Your task to perform on an android device: Do I have any events today? Image 0: 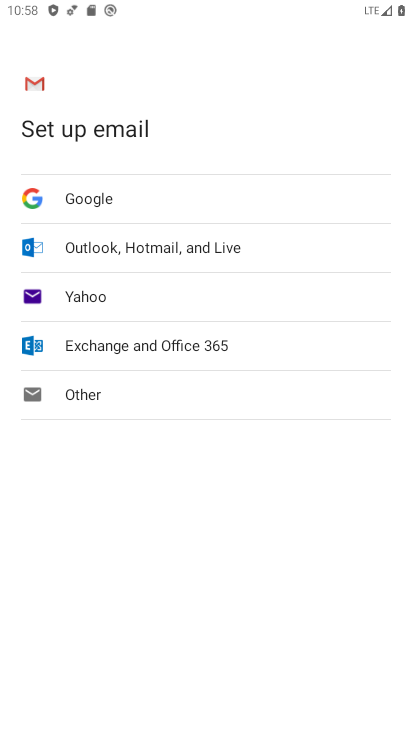
Step 0: press home button
Your task to perform on an android device: Do I have any events today? Image 1: 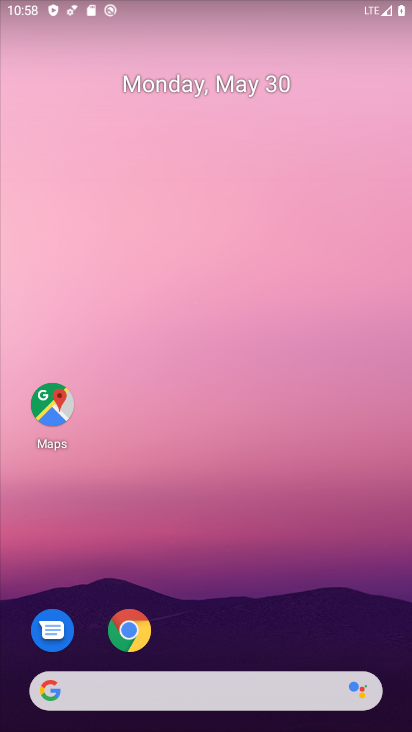
Step 1: drag from (268, 406) to (333, 164)
Your task to perform on an android device: Do I have any events today? Image 2: 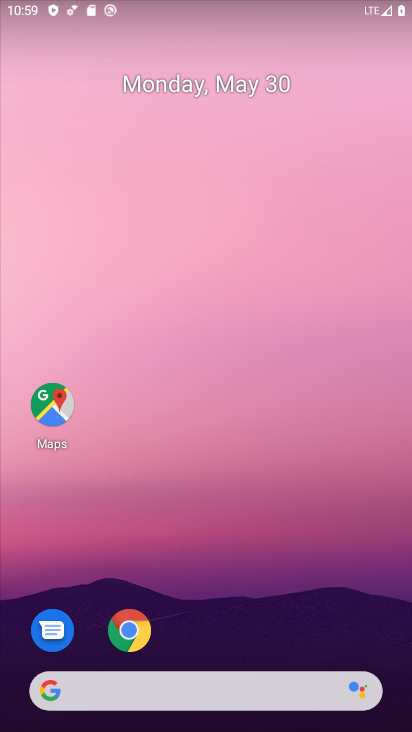
Step 2: drag from (276, 598) to (306, 185)
Your task to perform on an android device: Do I have any events today? Image 3: 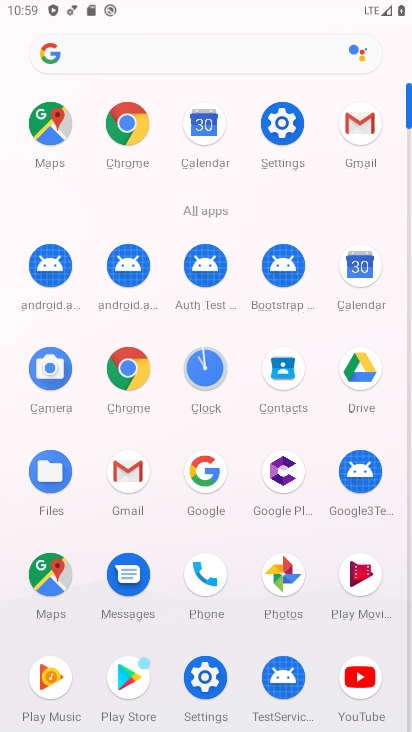
Step 3: click (365, 285)
Your task to perform on an android device: Do I have any events today? Image 4: 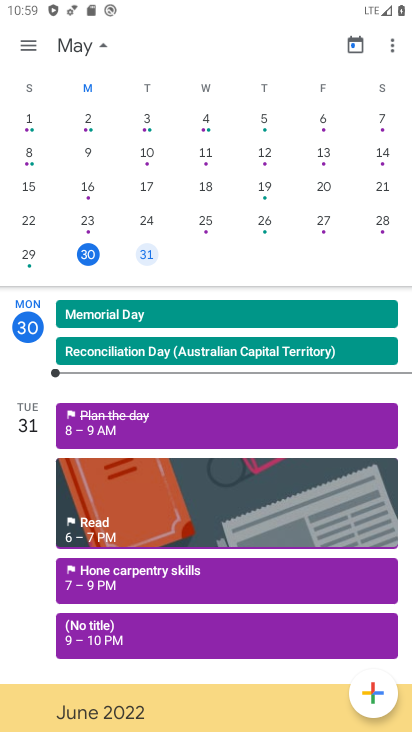
Step 4: click (141, 257)
Your task to perform on an android device: Do I have any events today? Image 5: 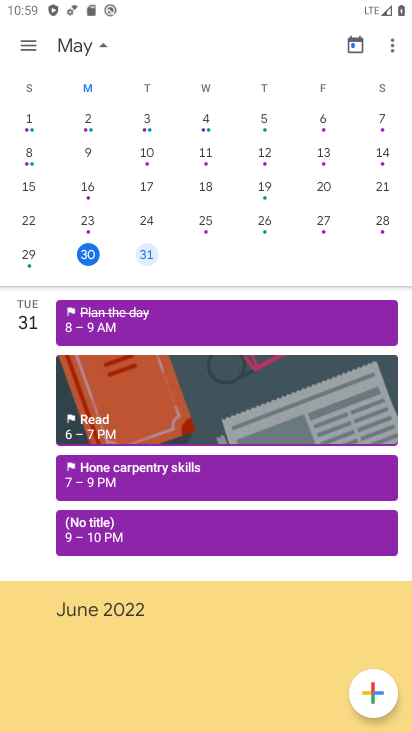
Step 5: task complete